Your task to perform on an android device: Show me popular videos on Youtube Image 0: 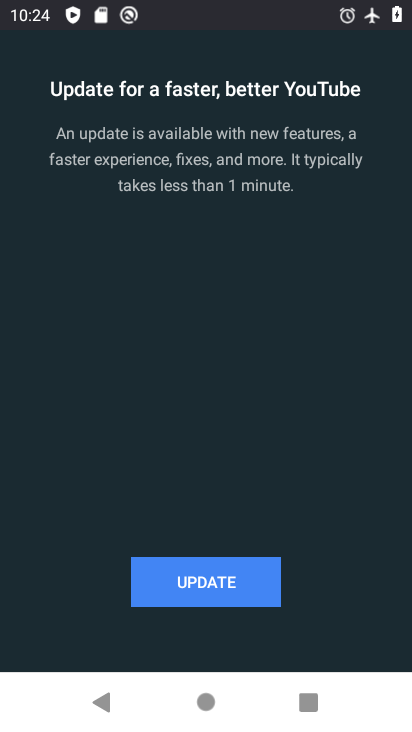
Step 0: press home button
Your task to perform on an android device: Show me popular videos on Youtube Image 1: 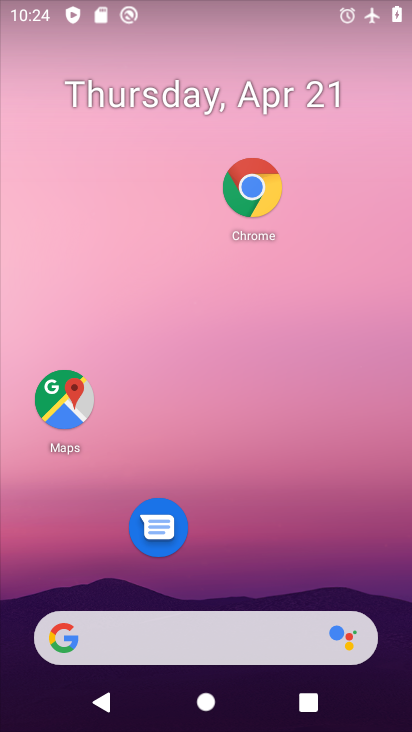
Step 1: drag from (288, 571) to (344, 227)
Your task to perform on an android device: Show me popular videos on Youtube Image 2: 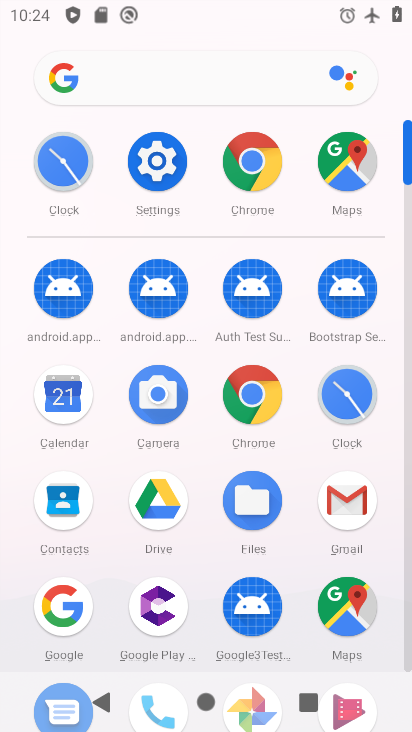
Step 2: drag from (265, 498) to (351, 164)
Your task to perform on an android device: Show me popular videos on Youtube Image 3: 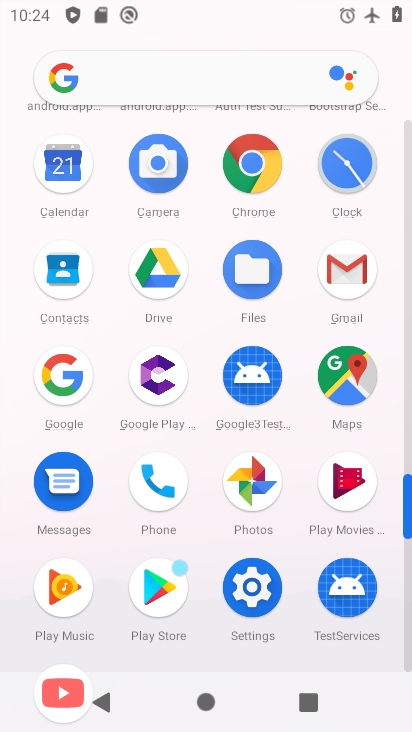
Step 3: drag from (150, 535) to (229, 152)
Your task to perform on an android device: Show me popular videos on Youtube Image 4: 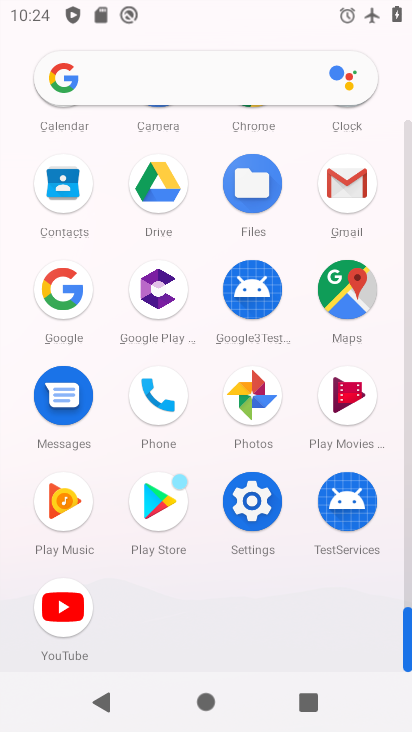
Step 4: click (56, 625)
Your task to perform on an android device: Show me popular videos on Youtube Image 5: 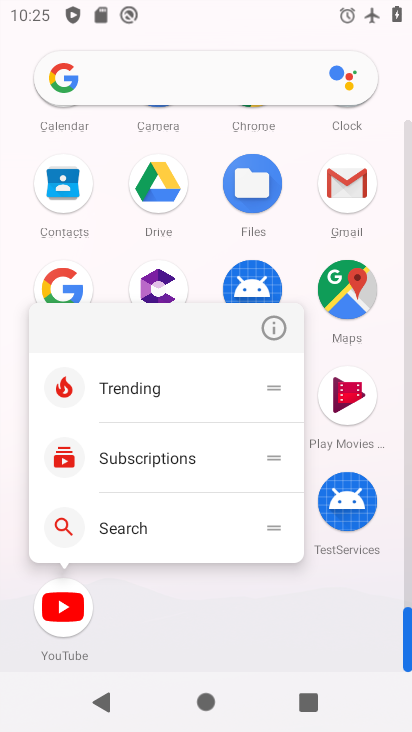
Step 5: click (64, 613)
Your task to perform on an android device: Show me popular videos on Youtube Image 6: 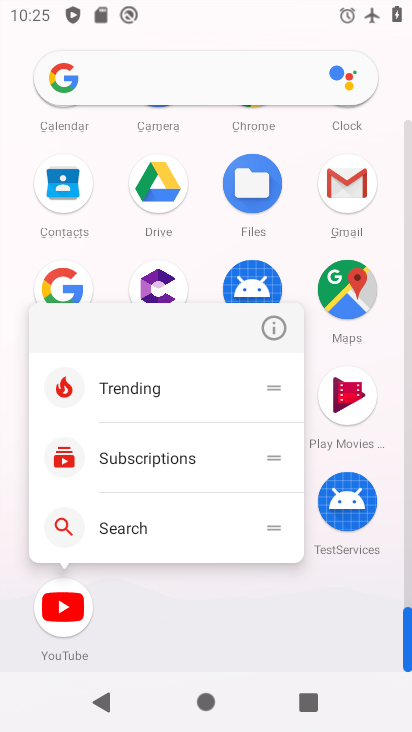
Step 6: click (72, 623)
Your task to perform on an android device: Show me popular videos on Youtube Image 7: 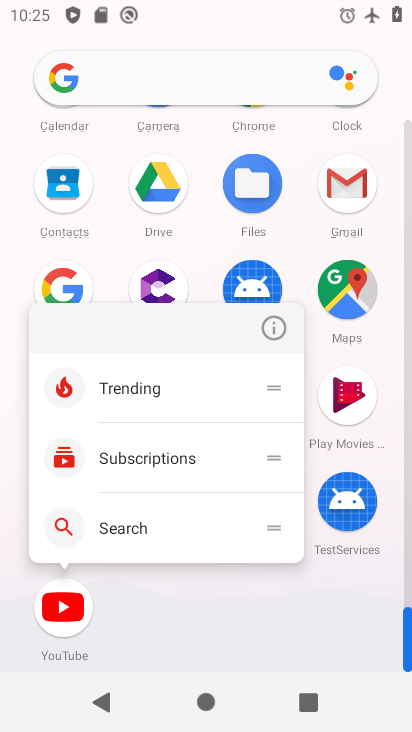
Step 7: click (77, 632)
Your task to perform on an android device: Show me popular videos on Youtube Image 8: 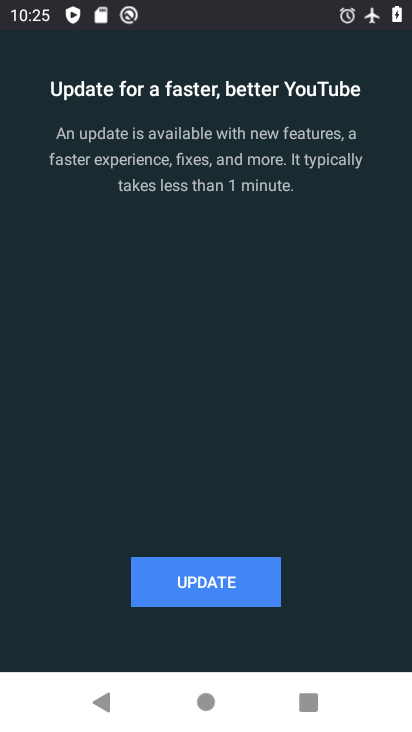
Step 8: click (238, 579)
Your task to perform on an android device: Show me popular videos on Youtube Image 9: 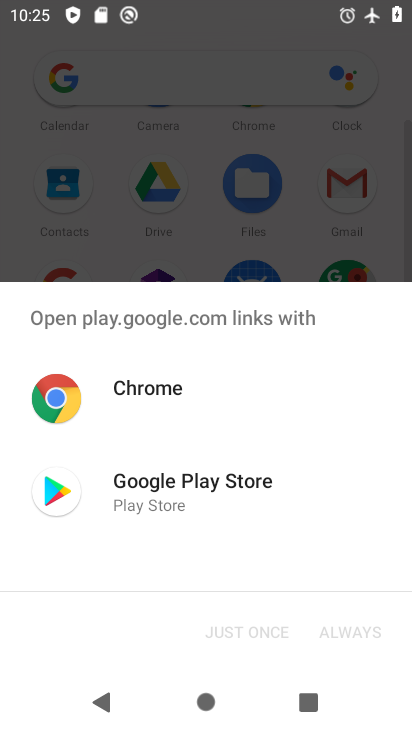
Step 9: click (226, 513)
Your task to perform on an android device: Show me popular videos on Youtube Image 10: 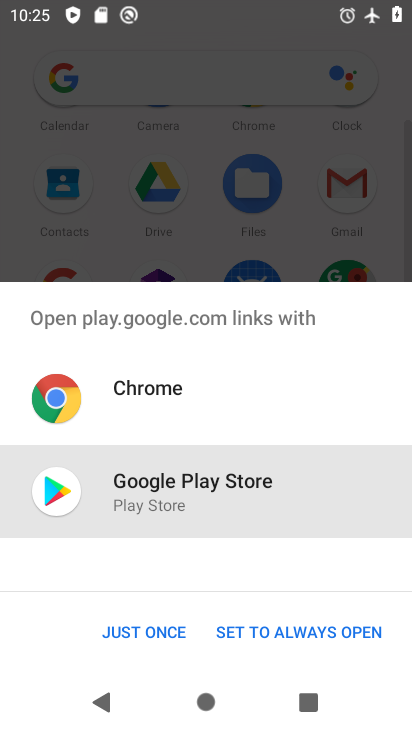
Step 10: click (135, 638)
Your task to perform on an android device: Show me popular videos on Youtube Image 11: 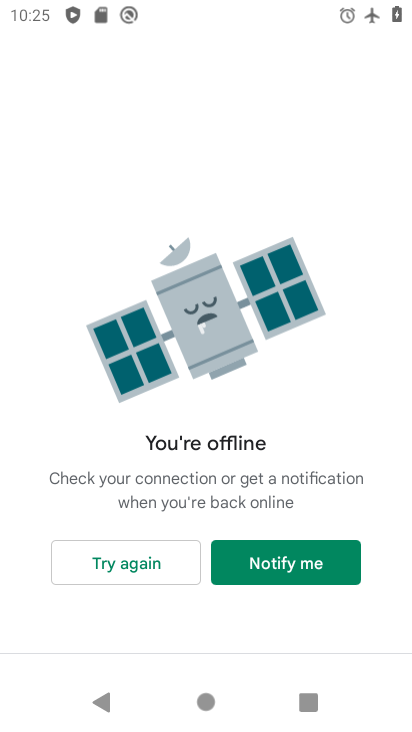
Step 11: task complete